Your task to perform on an android device: Search for "apple airpods" on ebay, select the first entry, and add it to the cart. Image 0: 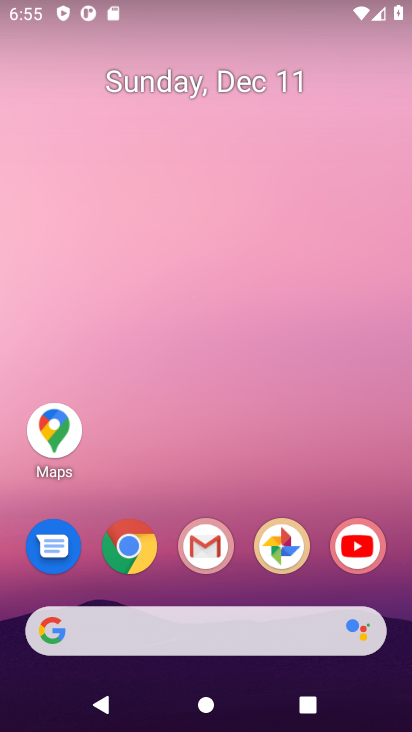
Step 0: click (127, 555)
Your task to perform on an android device: Search for "apple airpods" on ebay, select the first entry, and add it to the cart. Image 1: 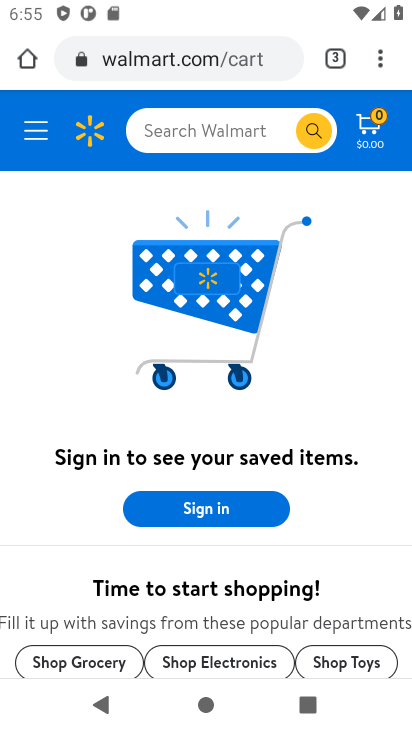
Step 1: click (167, 58)
Your task to perform on an android device: Search for "apple airpods" on ebay, select the first entry, and add it to the cart. Image 2: 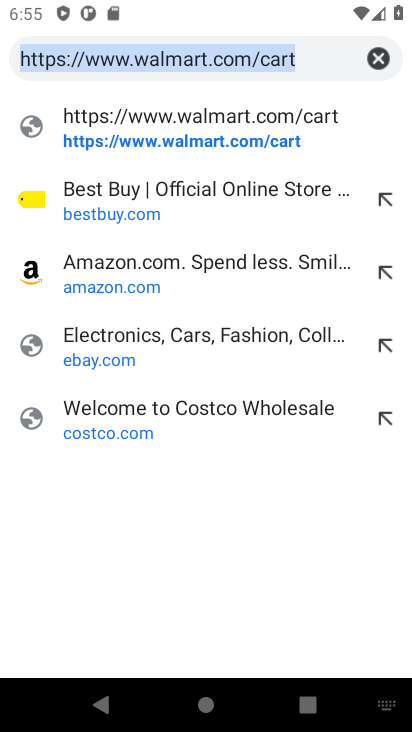
Step 2: click (98, 342)
Your task to perform on an android device: Search for "apple airpods" on ebay, select the first entry, and add it to the cart. Image 3: 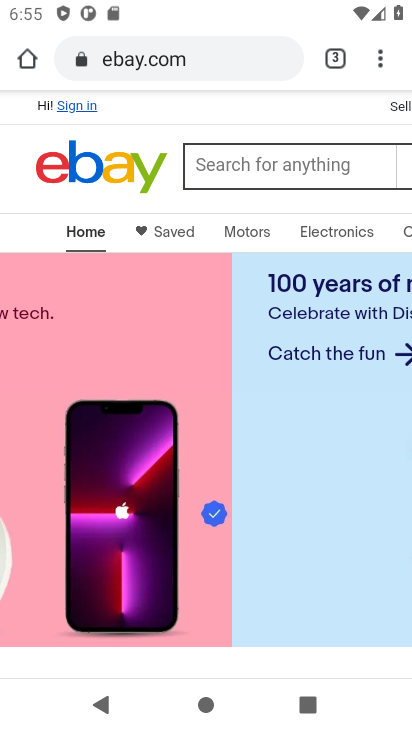
Step 3: click (252, 166)
Your task to perform on an android device: Search for "apple airpods" on ebay, select the first entry, and add it to the cart. Image 4: 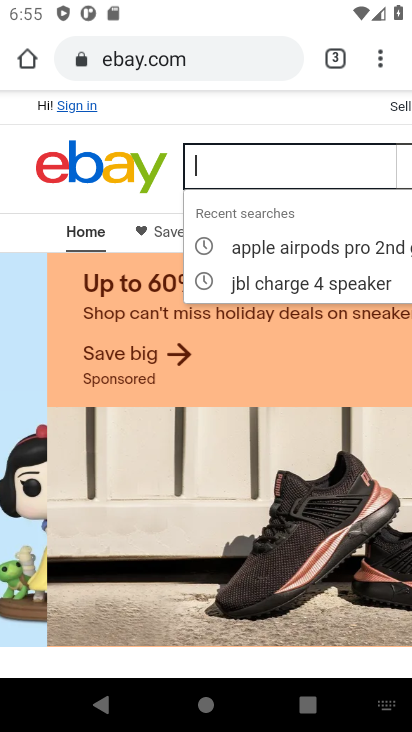
Step 4: type "apple airpods"
Your task to perform on an android device: Search for "apple airpods" on ebay, select the first entry, and add it to the cart. Image 5: 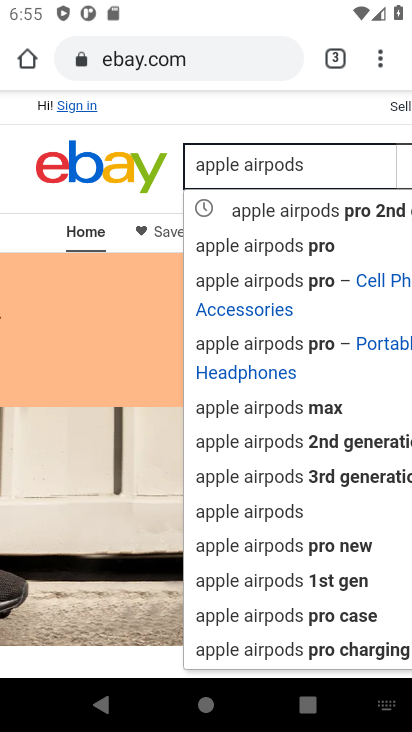
Step 5: click (257, 518)
Your task to perform on an android device: Search for "apple airpods" on ebay, select the first entry, and add it to the cart. Image 6: 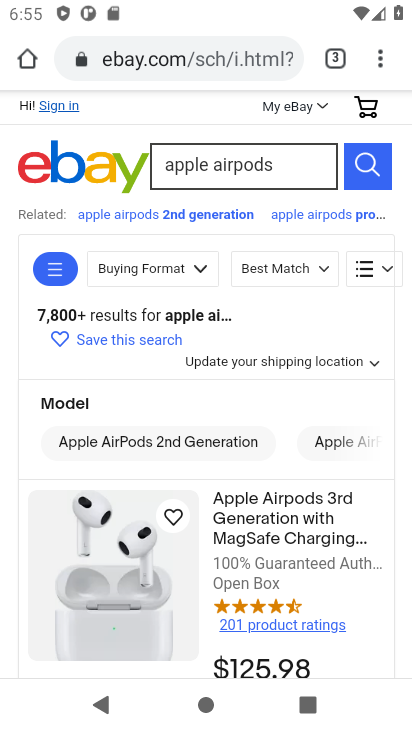
Step 6: drag from (252, 527) to (291, 320)
Your task to perform on an android device: Search for "apple airpods" on ebay, select the first entry, and add it to the cart. Image 7: 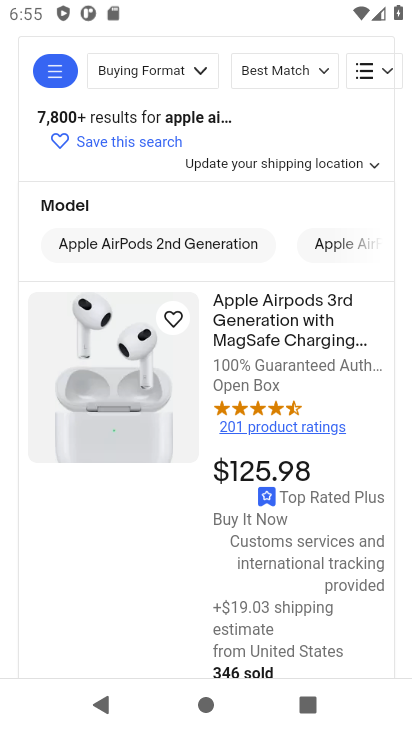
Step 7: click (248, 355)
Your task to perform on an android device: Search for "apple airpods" on ebay, select the first entry, and add it to the cart. Image 8: 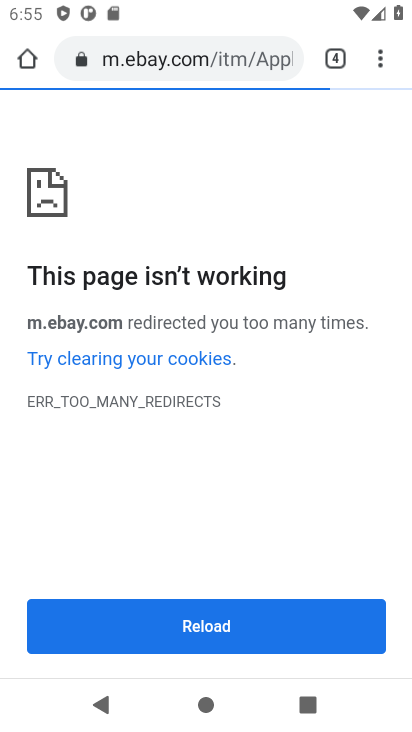
Step 8: task complete